Your task to perform on an android device: Open settings Image 0: 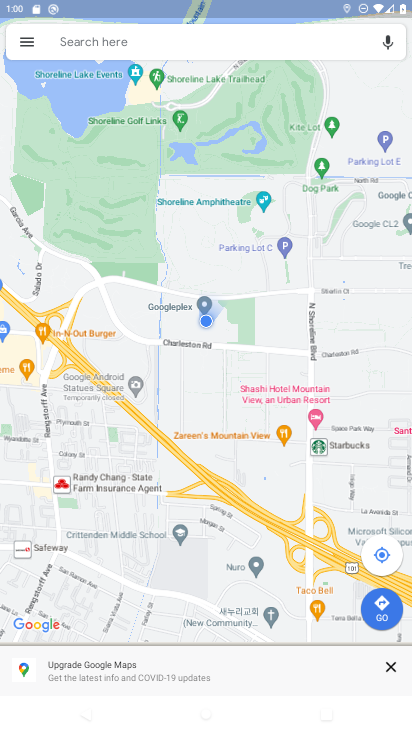
Step 0: press home button
Your task to perform on an android device: Open settings Image 1: 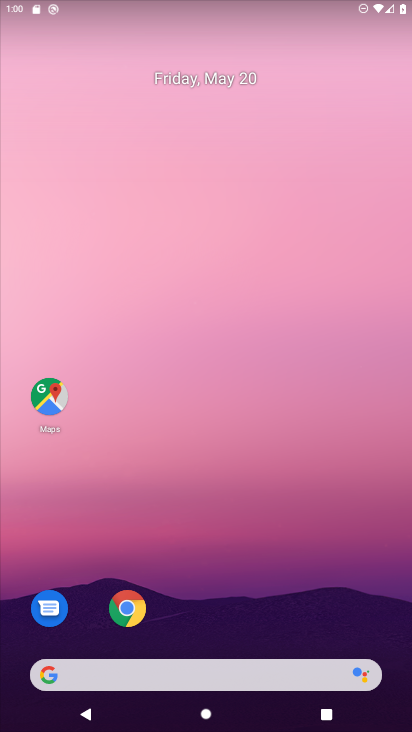
Step 1: drag from (363, 607) to (293, 243)
Your task to perform on an android device: Open settings Image 2: 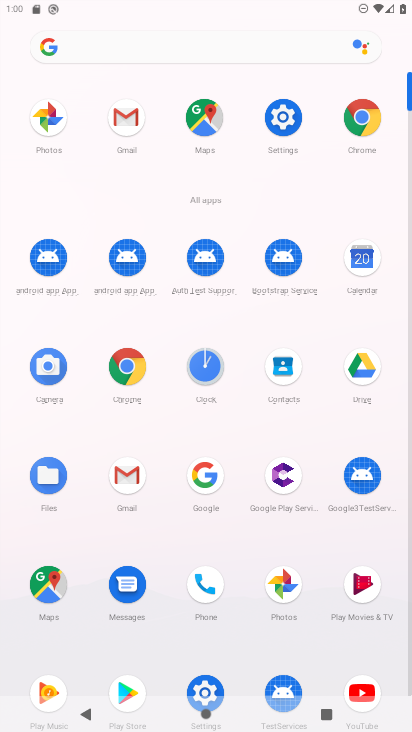
Step 2: click (293, 133)
Your task to perform on an android device: Open settings Image 3: 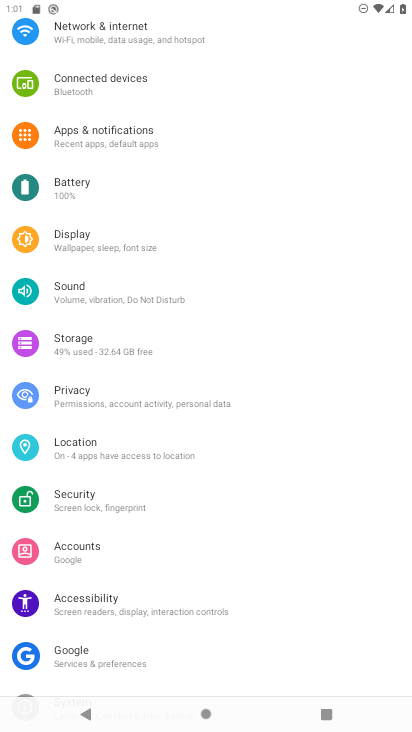
Step 3: task complete